Your task to perform on an android device: check out phone information Image 0: 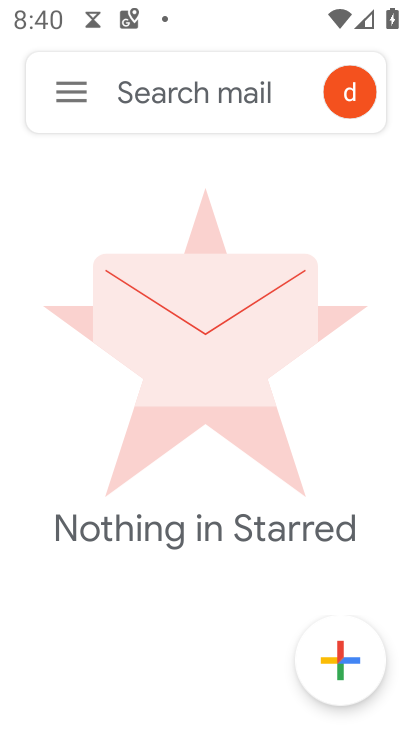
Step 0: press home button
Your task to perform on an android device: check out phone information Image 1: 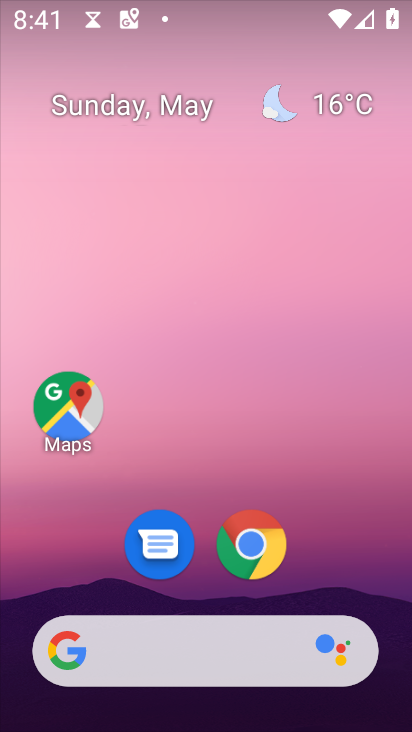
Step 1: drag from (309, 538) to (310, 2)
Your task to perform on an android device: check out phone information Image 2: 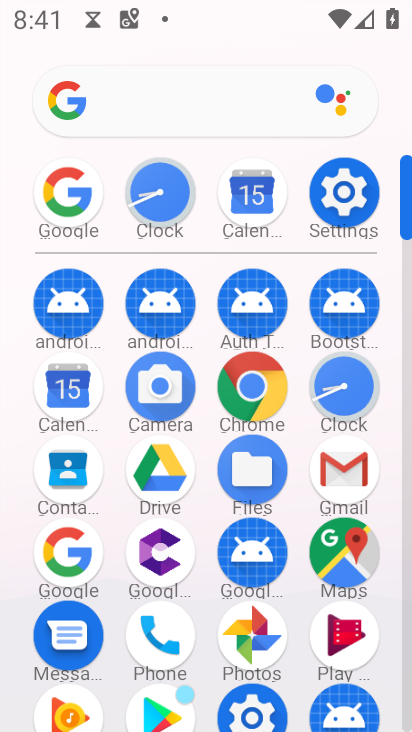
Step 2: click (345, 539)
Your task to perform on an android device: check out phone information Image 3: 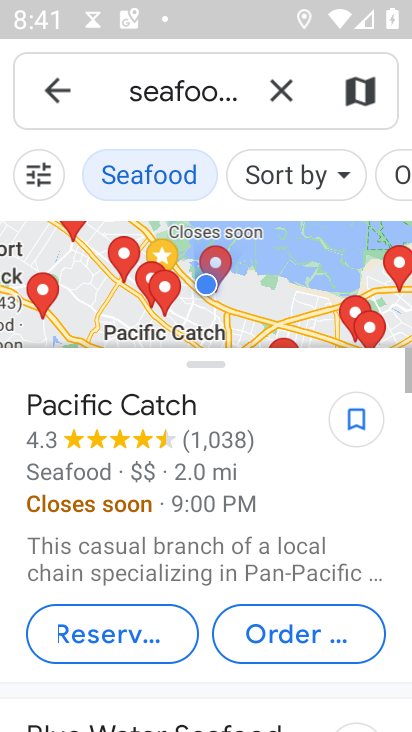
Step 3: press home button
Your task to perform on an android device: check out phone information Image 4: 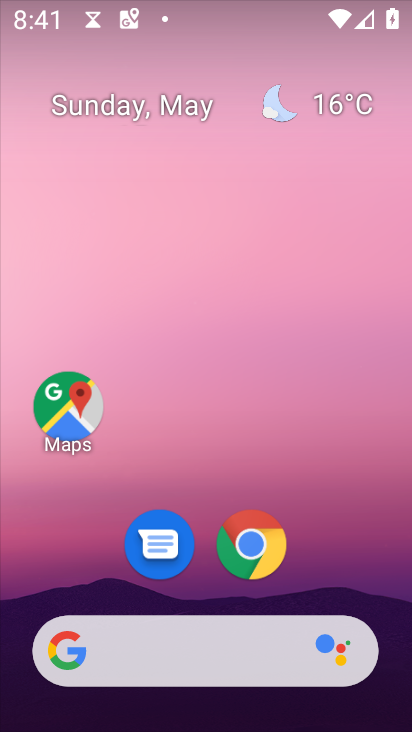
Step 4: drag from (292, 594) to (299, 96)
Your task to perform on an android device: check out phone information Image 5: 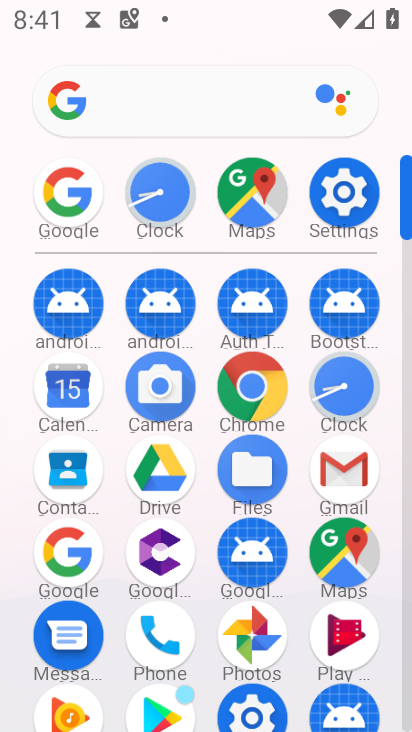
Step 5: click (340, 191)
Your task to perform on an android device: check out phone information Image 6: 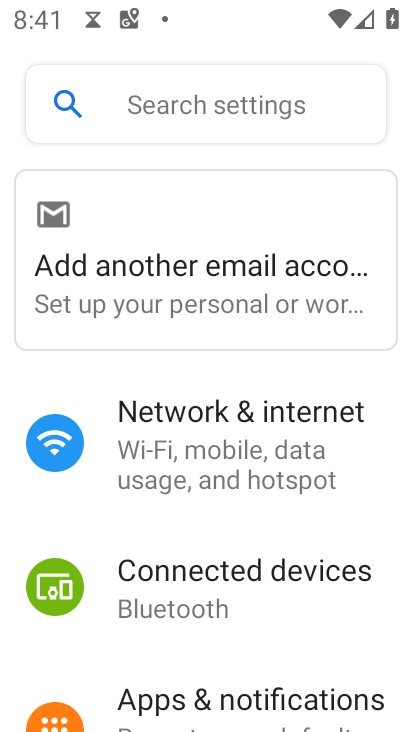
Step 6: drag from (259, 675) to (253, 263)
Your task to perform on an android device: check out phone information Image 7: 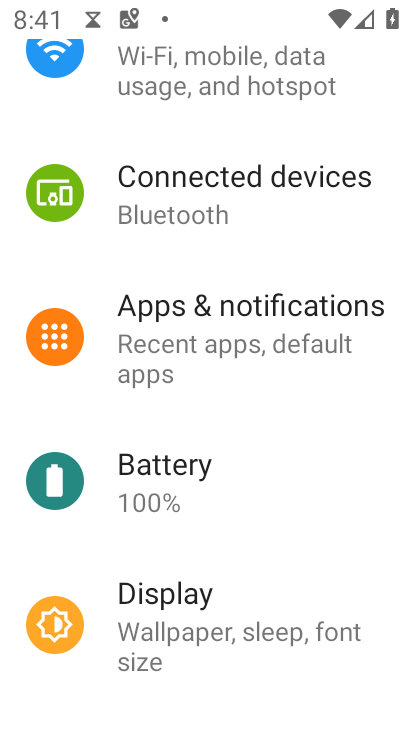
Step 7: drag from (243, 575) to (233, 145)
Your task to perform on an android device: check out phone information Image 8: 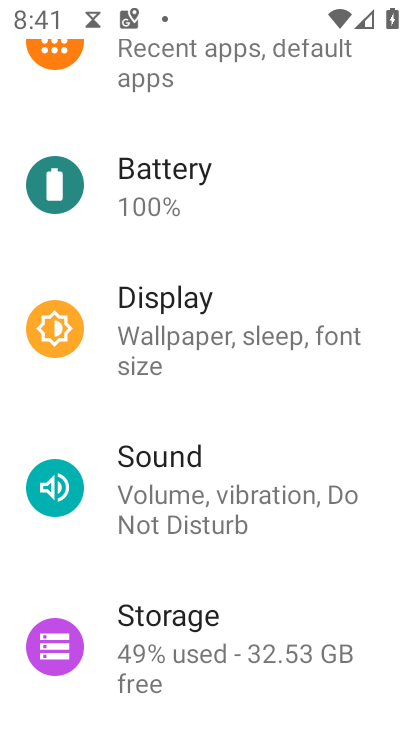
Step 8: drag from (248, 598) to (230, 153)
Your task to perform on an android device: check out phone information Image 9: 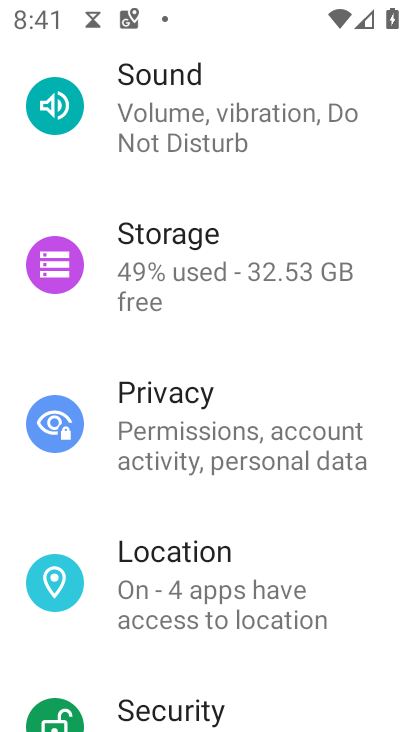
Step 9: drag from (265, 622) to (288, 105)
Your task to perform on an android device: check out phone information Image 10: 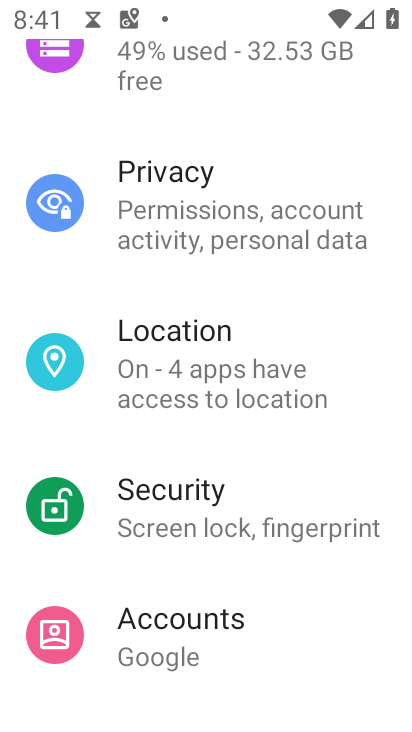
Step 10: drag from (254, 622) to (199, 98)
Your task to perform on an android device: check out phone information Image 11: 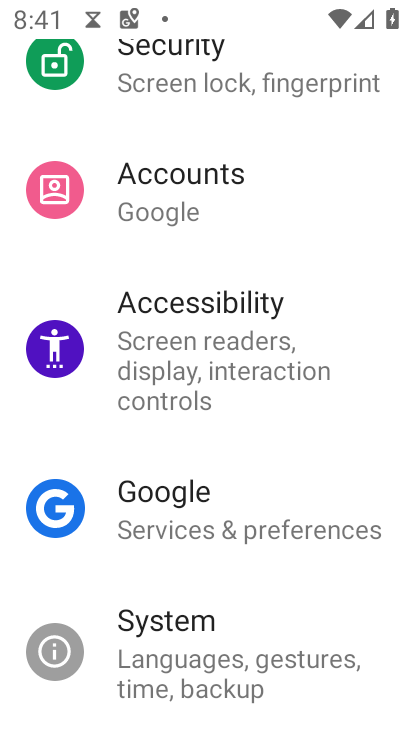
Step 11: drag from (177, 645) to (162, 240)
Your task to perform on an android device: check out phone information Image 12: 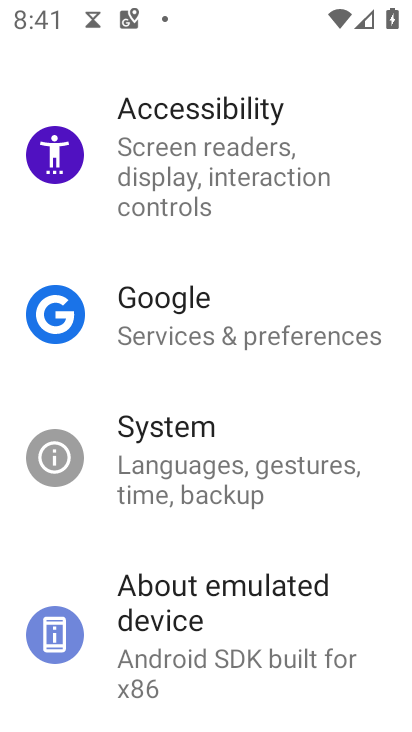
Step 12: click (188, 674)
Your task to perform on an android device: check out phone information Image 13: 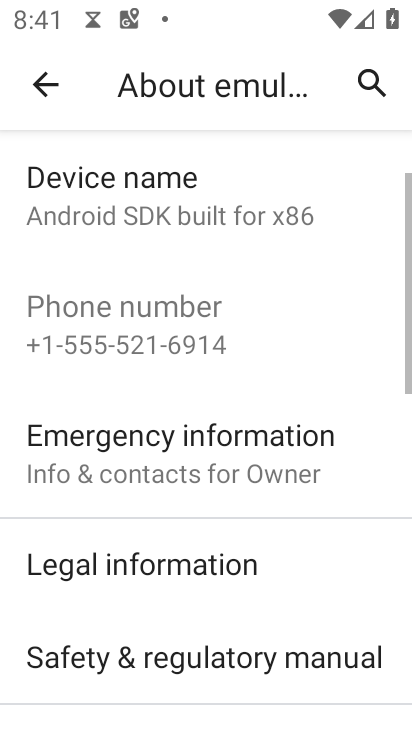
Step 13: task complete